Your task to perform on an android device: Open eBay Image 0: 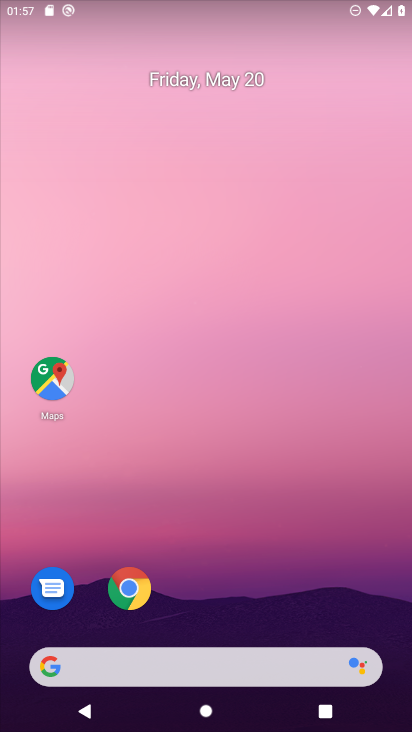
Step 0: click (130, 588)
Your task to perform on an android device: Open eBay Image 1: 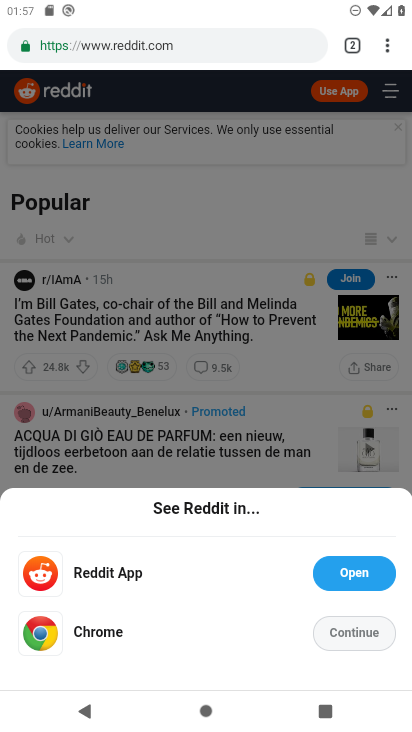
Step 1: click (192, 50)
Your task to perform on an android device: Open eBay Image 2: 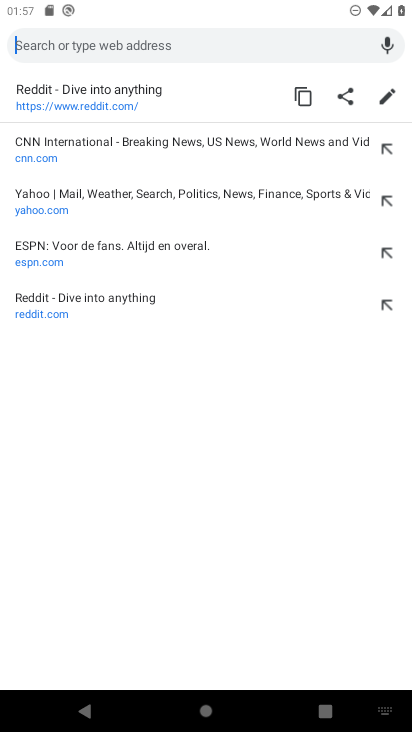
Step 2: type "ebay"
Your task to perform on an android device: Open eBay Image 3: 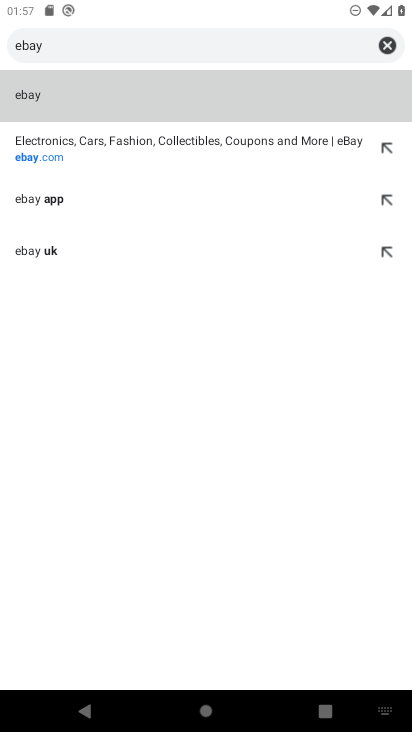
Step 3: click (50, 87)
Your task to perform on an android device: Open eBay Image 4: 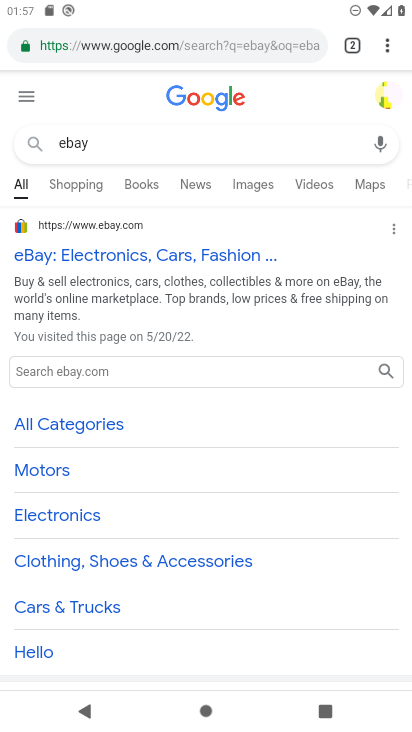
Step 4: click (56, 224)
Your task to perform on an android device: Open eBay Image 5: 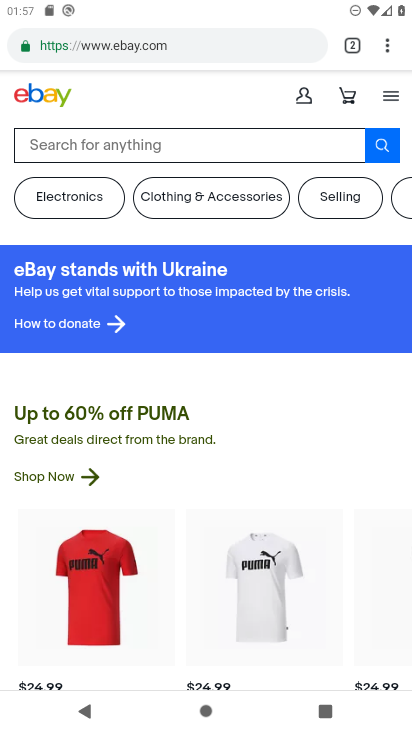
Step 5: task complete